Your task to perform on an android device: Open Chrome and go to the settings page Image 0: 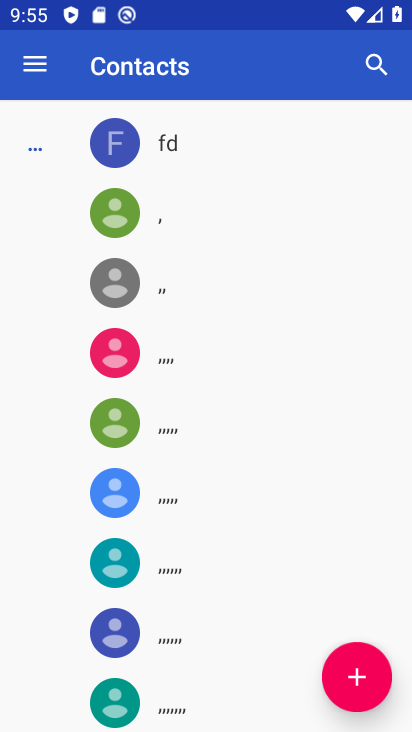
Step 0: press home button
Your task to perform on an android device: Open Chrome and go to the settings page Image 1: 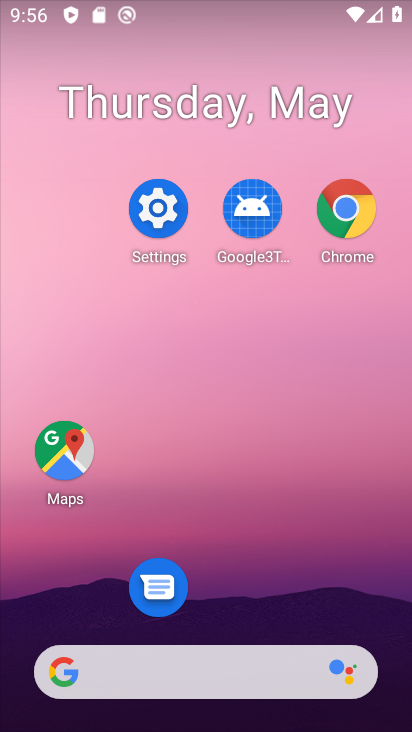
Step 1: click (362, 210)
Your task to perform on an android device: Open Chrome and go to the settings page Image 2: 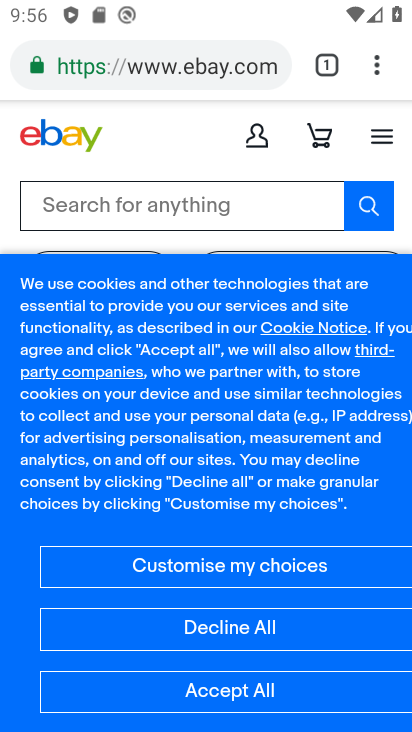
Step 2: click (376, 73)
Your task to perform on an android device: Open Chrome and go to the settings page Image 3: 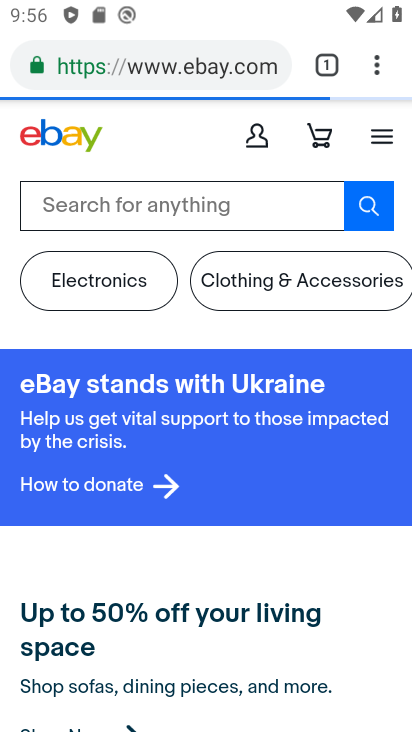
Step 3: click (376, 63)
Your task to perform on an android device: Open Chrome and go to the settings page Image 4: 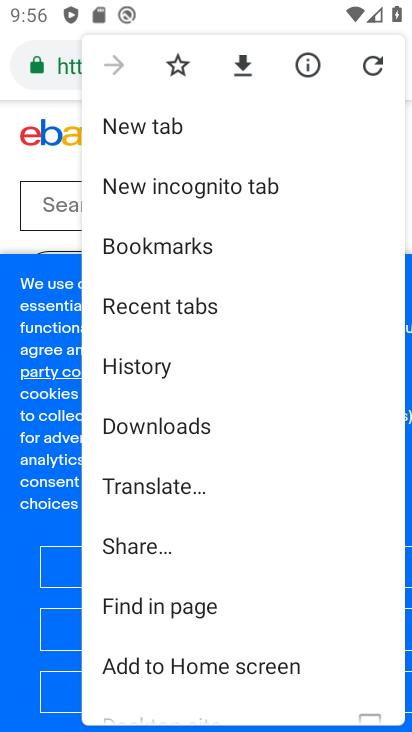
Step 4: drag from (155, 641) to (183, 385)
Your task to perform on an android device: Open Chrome and go to the settings page Image 5: 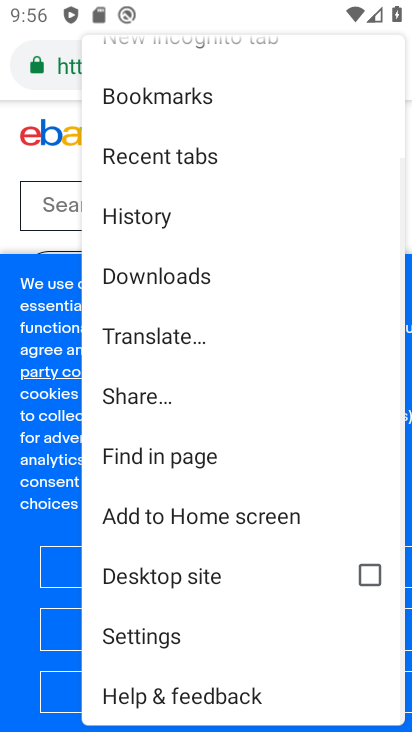
Step 5: click (159, 644)
Your task to perform on an android device: Open Chrome and go to the settings page Image 6: 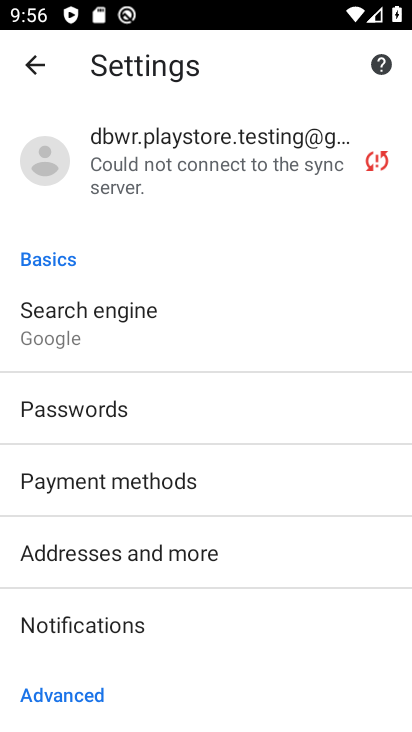
Step 6: task complete